Your task to perform on an android device: change text size in settings app Image 0: 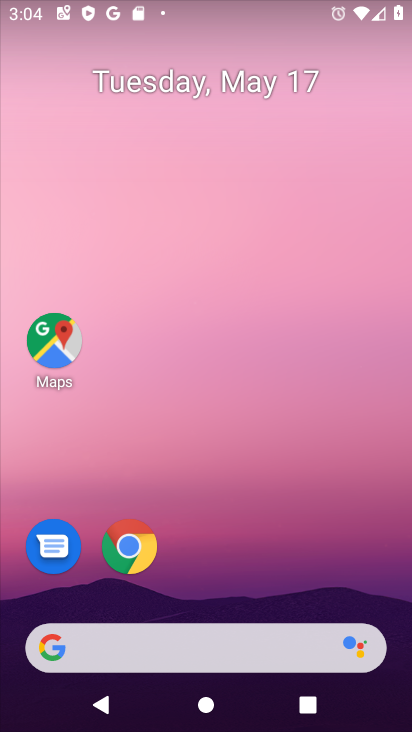
Step 0: drag from (406, 589) to (396, 282)
Your task to perform on an android device: change text size in settings app Image 1: 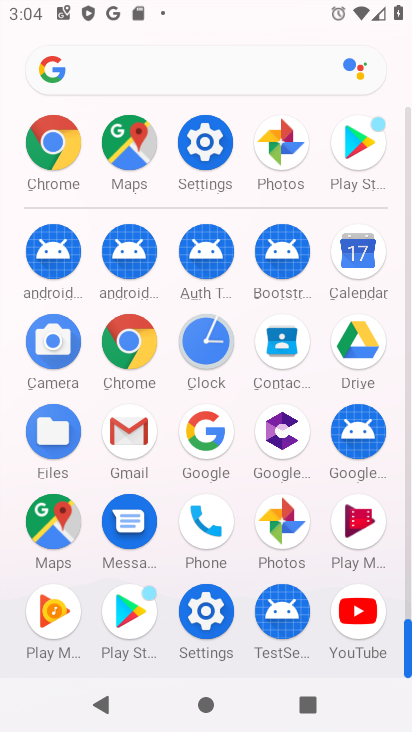
Step 1: click (206, 132)
Your task to perform on an android device: change text size in settings app Image 2: 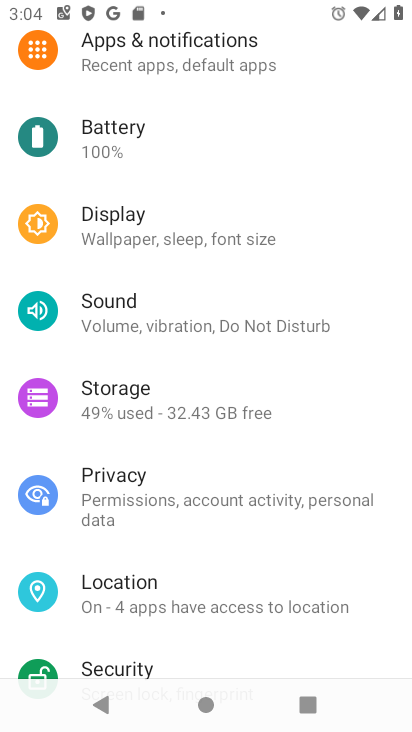
Step 2: click (135, 230)
Your task to perform on an android device: change text size in settings app Image 3: 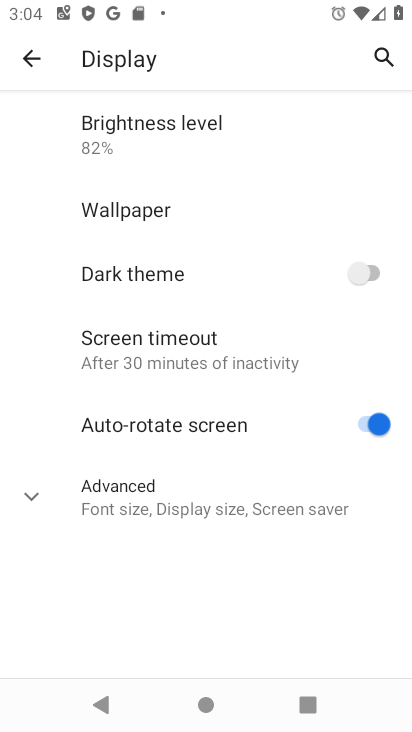
Step 3: click (37, 489)
Your task to perform on an android device: change text size in settings app Image 4: 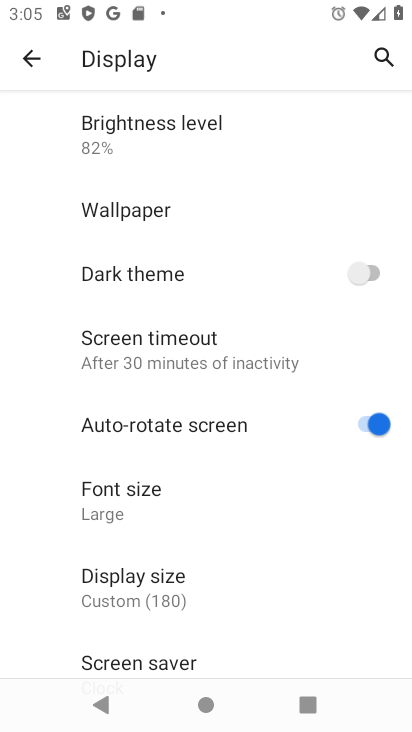
Step 4: click (100, 487)
Your task to perform on an android device: change text size in settings app Image 5: 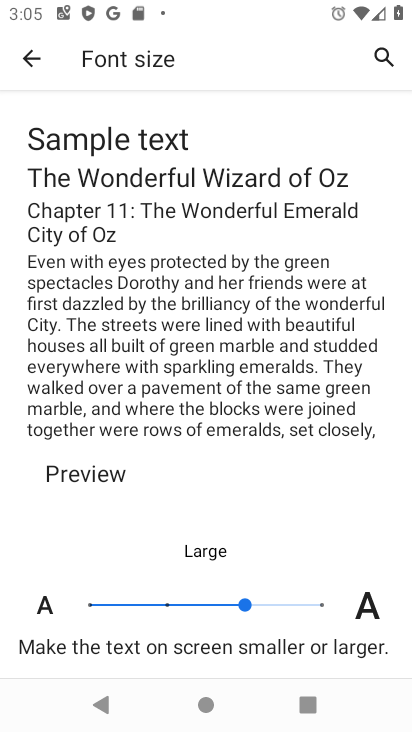
Step 5: click (220, 607)
Your task to perform on an android device: change text size in settings app Image 6: 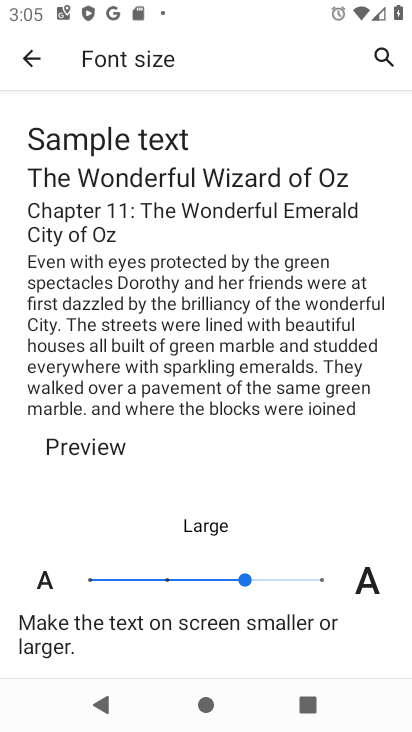
Step 6: click (214, 581)
Your task to perform on an android device: change text size in settings app Image 7: 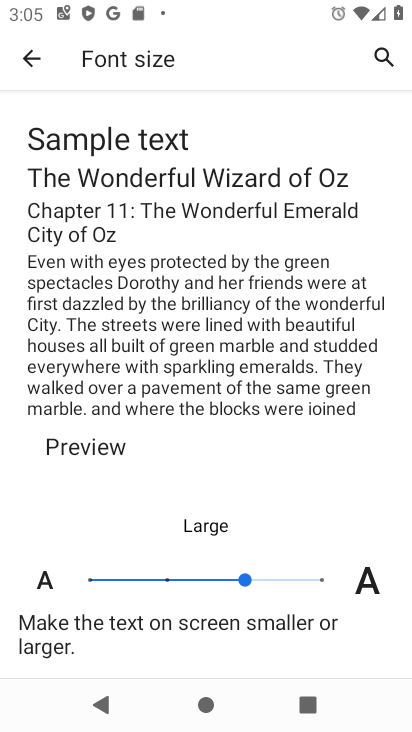
Step 7: click (208, 578)
Your task to perform on an android device: change text size in settings app Image 8: 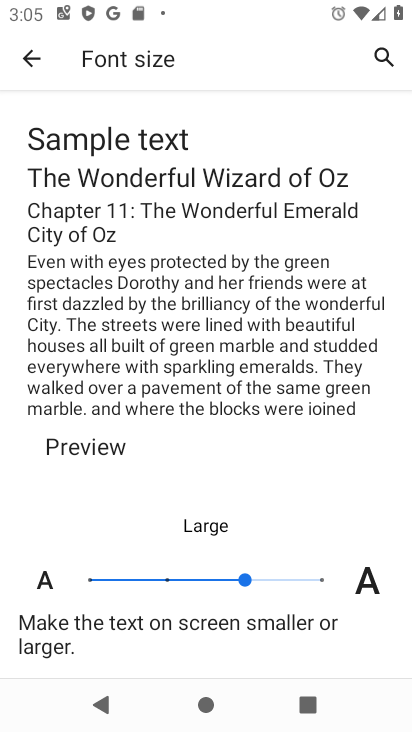
Step 8: click (189, 573)
Your task to perform on an android device: change text size in settings app Image 9: 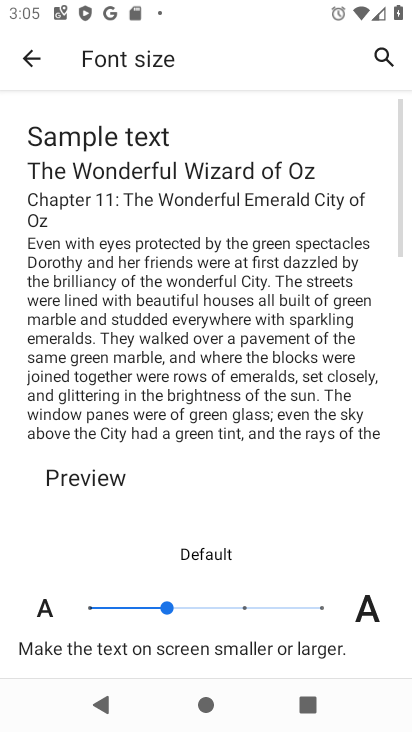
Step 9: task complete